Your task to perform on an android device: Clear the cart on target.com. Search for "asus zenbook" on target.com, select the first entry, add it to the cart, then select checkout. Image 0: 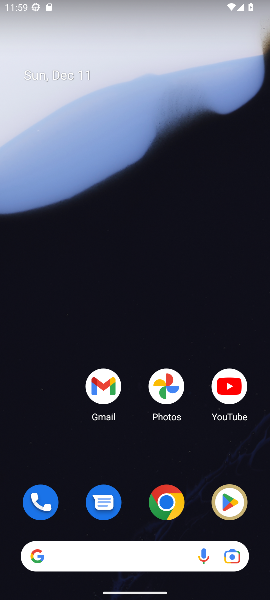
Step 0: click (137, 555)
Your task to perform on an android device: Clear the cart on target.com. Search for "asus zenbook" on target.com, select the first entry, add it to the cart, then select checkout. Image 1: 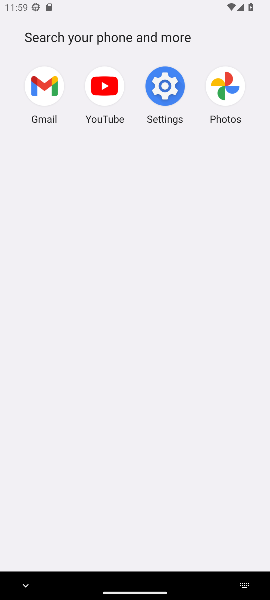
Step 1: type "target"
Your task to perform on an android device: Clear the cart on target.com. Search for "asus zenbook" on target.com, select the first entry, add it to the cart, then select checkout. Image 2: 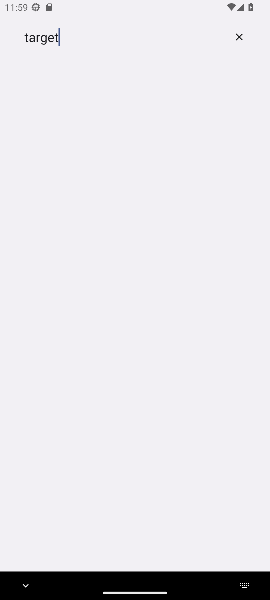
Step 2: click (243, 43)
Your task to perform on an android device: Clear the cart on target.com. Search for "asus zenbook" on target.com, select the first entry, add it to the cart, then select checkout. Image 3: 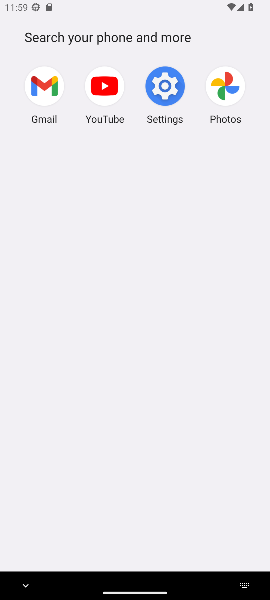
Step 3: press home button
Your task to perform on an android device: Clear the cart on target.com. Search for "asus zenbook" on target.com, select the first entry, add it to the cart, then select checkout. Image 4: 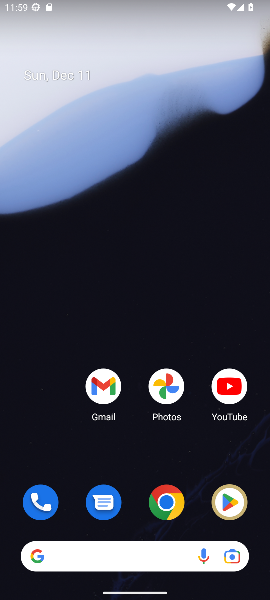
Step 4: click (172, 496)
Your task to perform on an android device: Clear the cart on target.com. Search for "asus zenbook" on target.com, select the first entry, add it to the cart, then select checkout. Image 5: 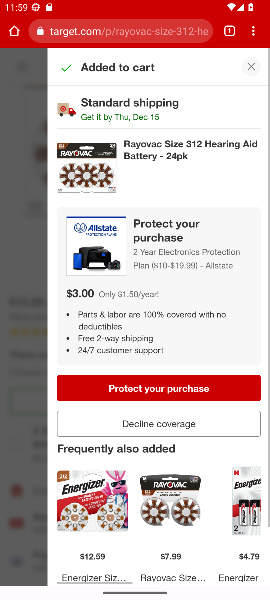
Step 5: click (153, 30)
Your task to perform on an android device: Clear the cart on target.com. Search for "asus zenbook" on target.com, select the first entry, add it to the cart, then select checkout. Image 6: 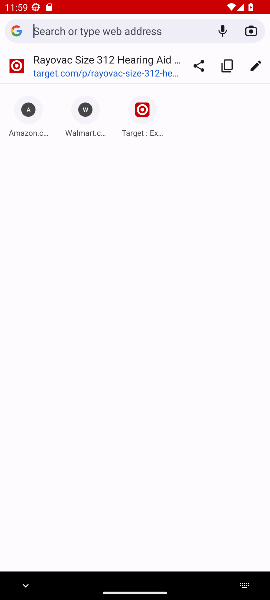
Step 6: press back button
Your task to perform on an android device: Clear the cart on target.com. Search for "asus zenbook" on target.com, select the first entry, add it to the cart, then select checkout. Image 7: 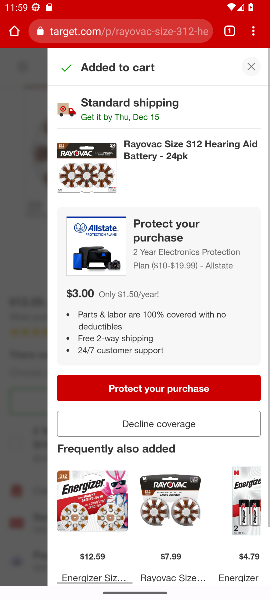
Step 7: click (248, 70)
Your task to perform on an android device: Clear the cart on target.com. Search for "asus zenbook" on target.com, select the first entry, add it to the cart, then select checkout. Image 8: 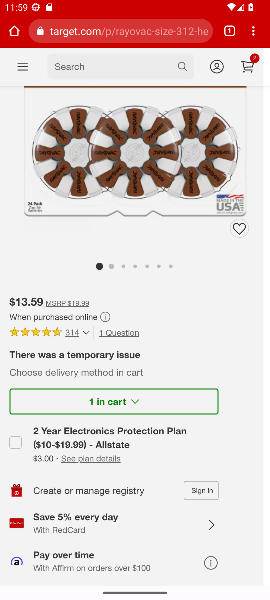
Step 8: click (179, 65)
Your task to perform on an android device: Clear the cart on target.com. Search for "asus zenbook" on target.com, select the first entry, add it to the cart, then select checkout. Image 9: 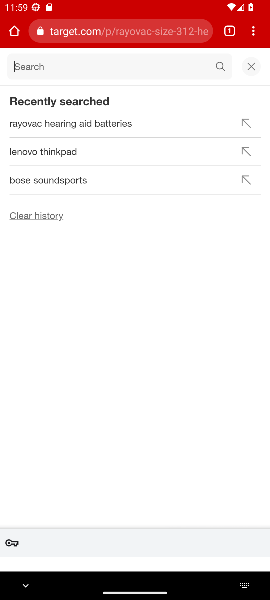
Step 9: type "asus zenbook"
Your task to perform on an android device: Clear the cart on target.com. Search for "asus zenbook" on target.com, select the first entry, add it to the cart, then select checkout. Image 10: 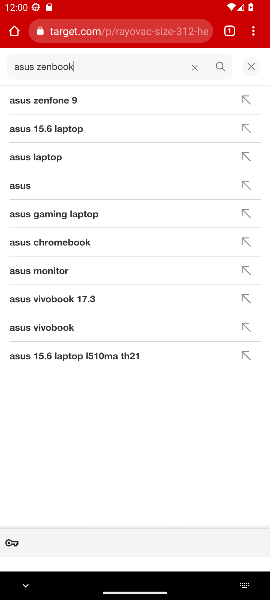
Step 10: click (224, 71)
Your task to perform on an android device: Clear the cart on target.com. Search for "asus zenbook" on target.com, select the first entry, add it to the cart, then select checkout. Image 11: 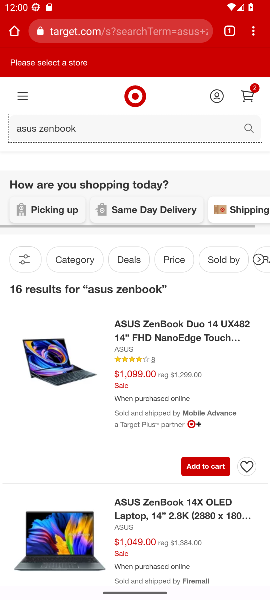
Step 11: click (215, 462)
Your task to perform on an android device: Clear the cart on target.com. Search for "asus zenbook" on target.com, select the first entry, add it to the cart, then select checkout. Image 12: 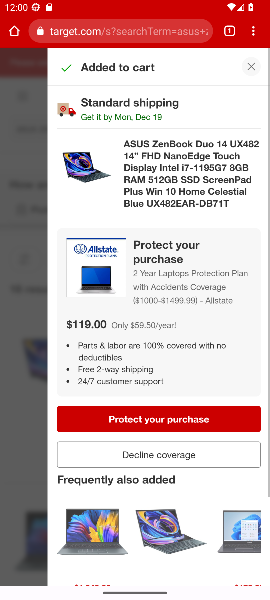
Step 12: task complete